Your task to perform on an android device: What's the weather? Image 0: 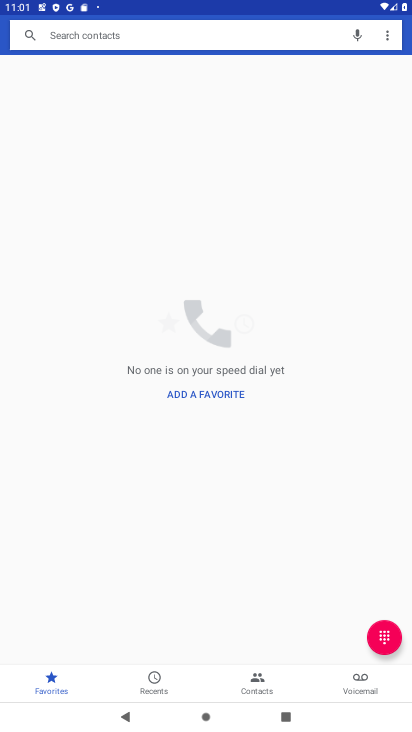
Step 0: press home button
Your task to perform on an android device: What's the weather? Image 1: 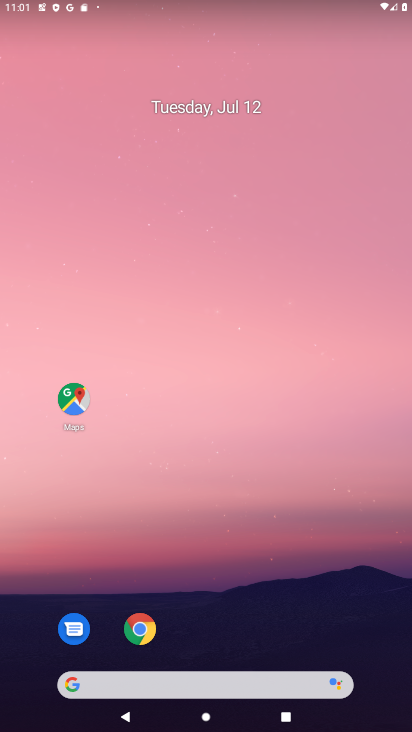
Step 1: drag from (255, 620) to (257, 279)
Your task to perform on an android device: What's the weather? Image 2: 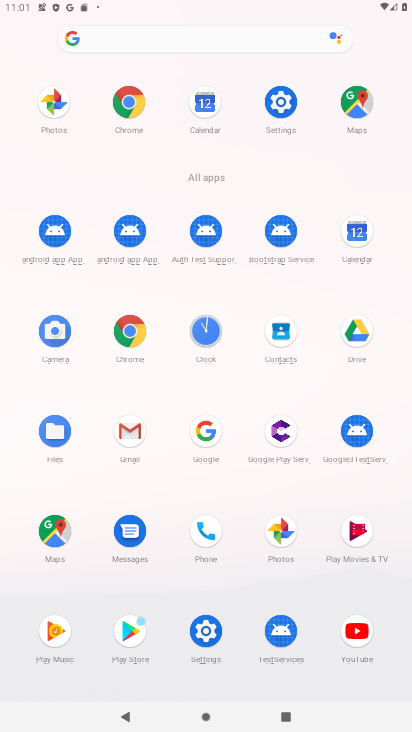
Step 2: click (124, 94)
Your task to perform on an android device: What's the weather? Image 3: 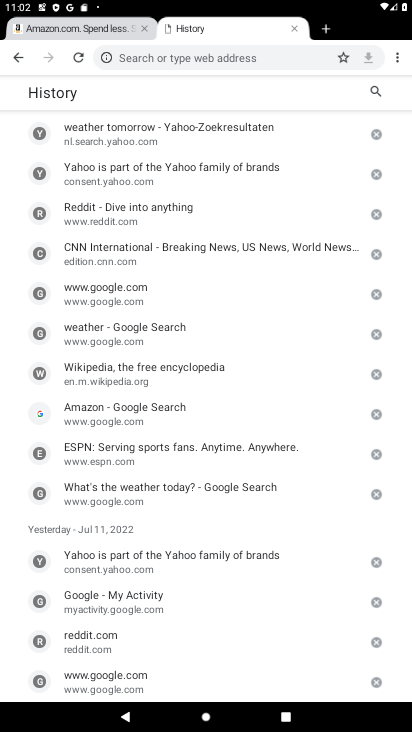
Step 3: click (408, 55)
Your task to perform on an android device: What's the weather? Image 4: 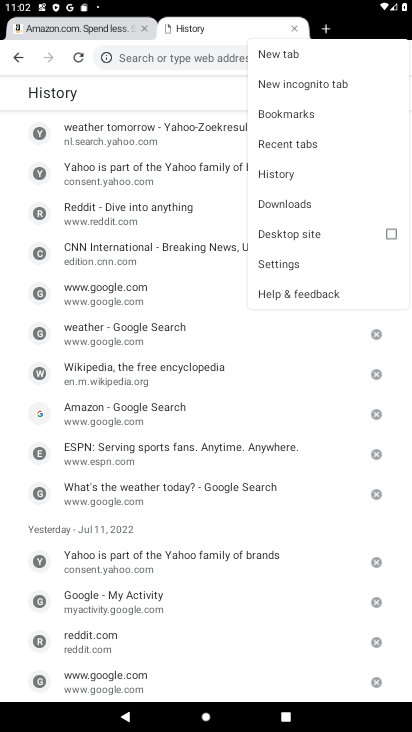
Step 4: click (312, 46)
Your task to perform on an android device: What's the weather? Image 5: 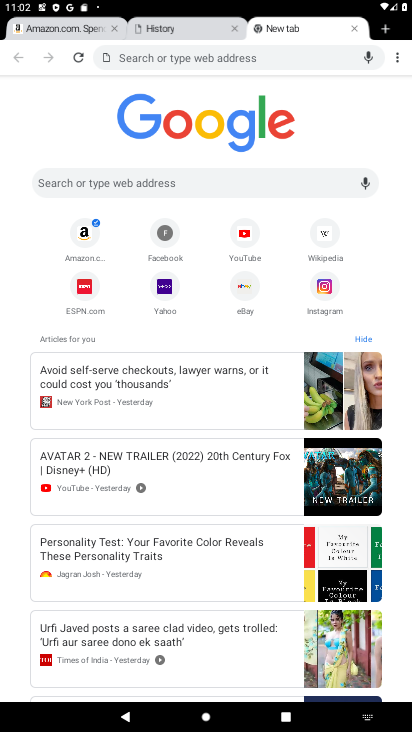
Step 5: click (179, 174)
Your task to perform on an android device: What's the weather? Image 6: 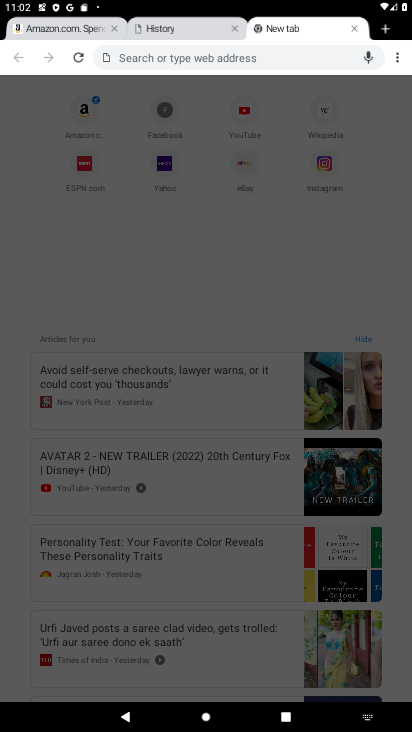
Step 6: type "What's the weather "
Your task to perform on an android device: What's the weather? Image 7: 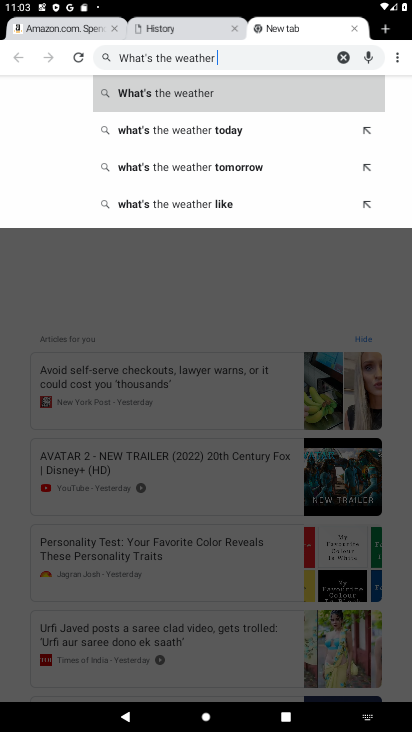
Step 7: click (258, 83)
Your task to perform on an android device: What's the weather? Image 8: 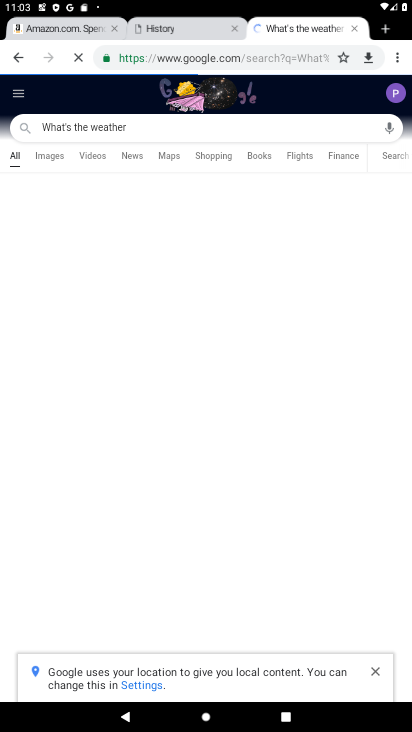
Step 8: task complete